Your task to perform on an android device: Open the stopwatch Image 0: 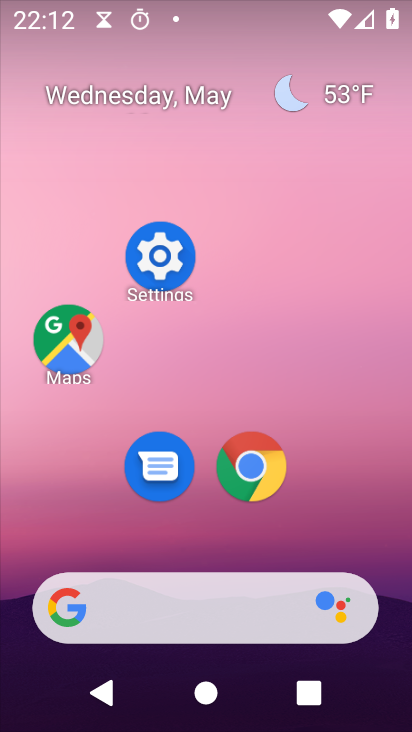
Step 0: drag from (211, 503) to (240, 191)
Your task to perform on an android device: Open the stopwatch Image 1: 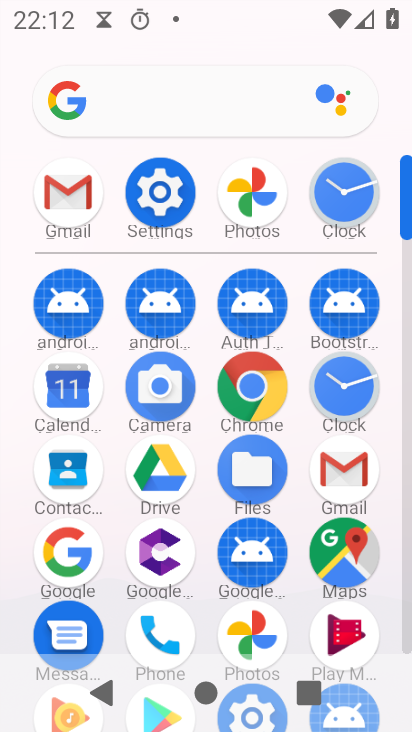
Step 1: click (338, 384)
Your task to perform on an android device: Open the stopwatch Image 2: 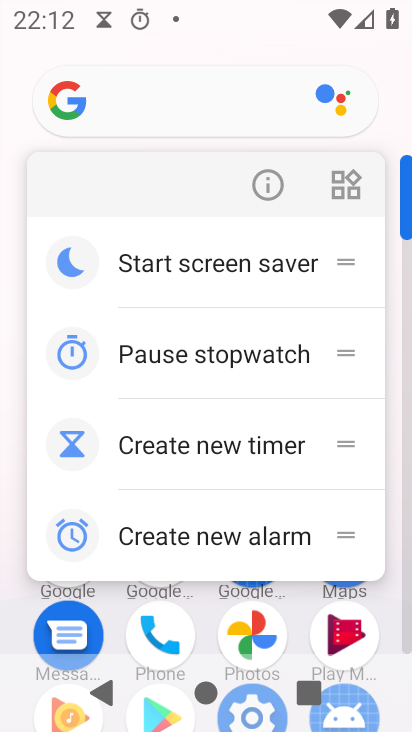
Step 2: click (279, 172)
Your task to perform on an android device: Open the stopwatch Image 3: 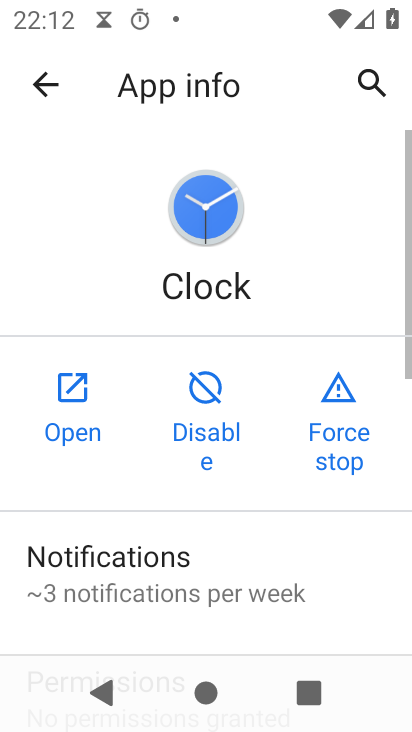
Step 3: click (75, 404)
Your task to perform on an android device: Open the stopwatch Image 4: 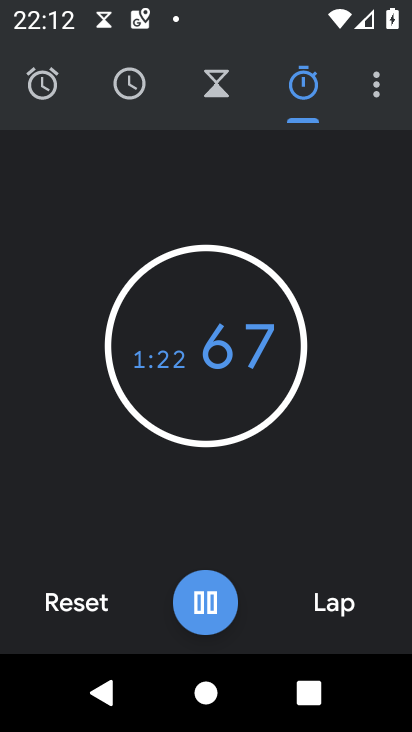
Step 4: click (108, 621)
Your task to perform on an android device: Open the stopwatch Image 5: 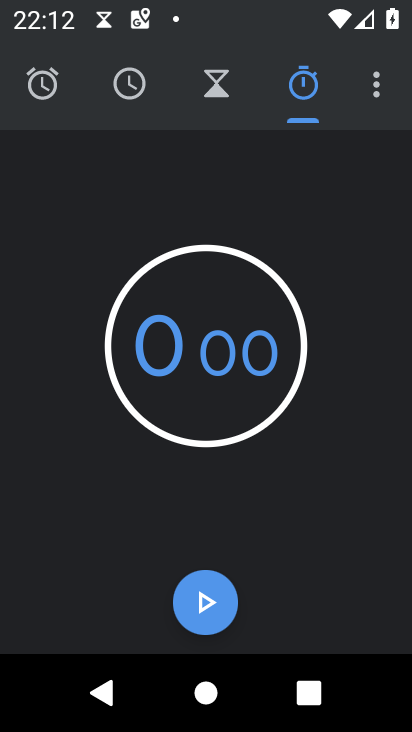
Step 5: task complete